Your task to perform on an android device: add a contact in the contacts app Image 0: 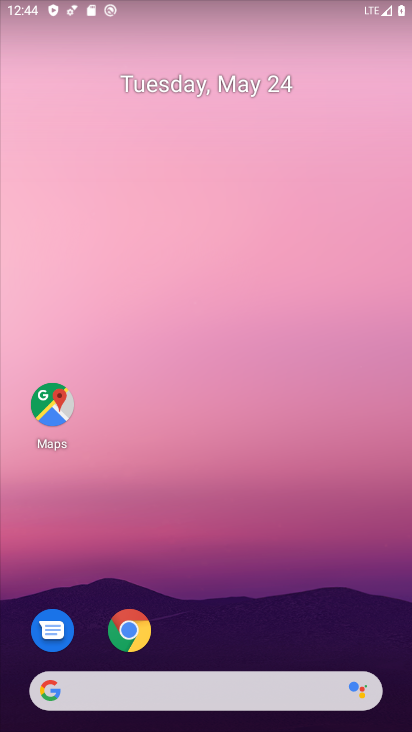
Step 0: drag from (296, 633) to (366, 11)
Your task to perform on an android device: add a contact in the contacts app Image 1: 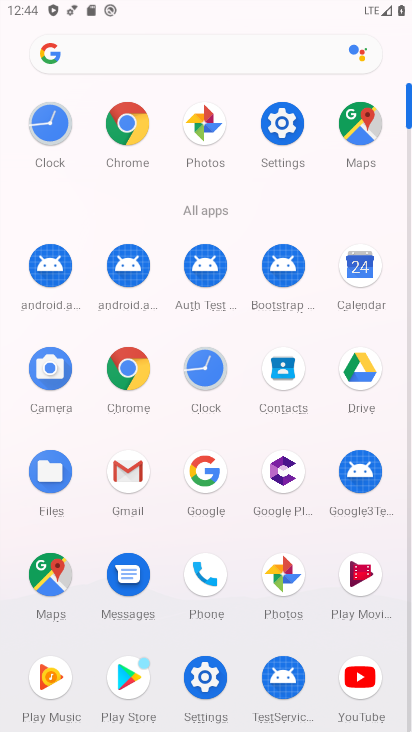
Step 1: click (285, 377)
Your task to perform on an android device: add a contact in the contacts app Image 2: 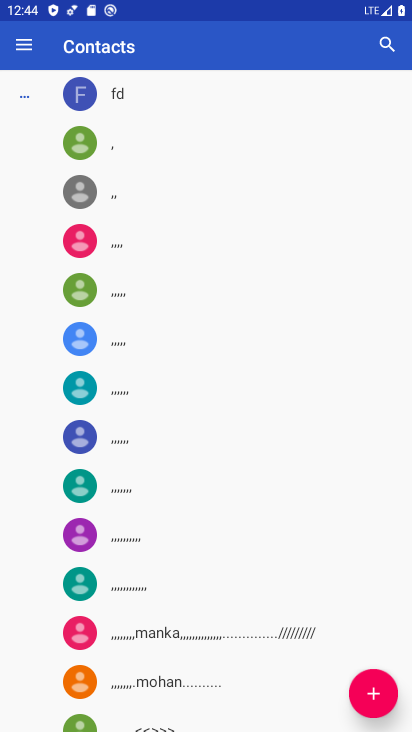
Step 2: click (377, 701)
Your task to perform on an android device: add a contact in the contacts app Image 3: 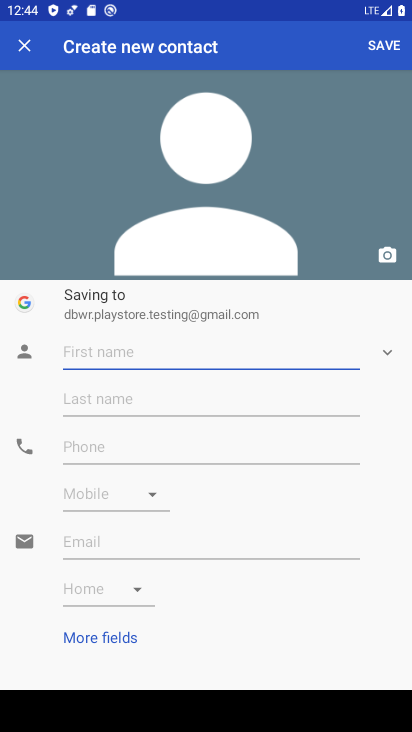
Step 3: type "tra"
Your task to perform on an android device: add a contact in the contacts app Image 4: 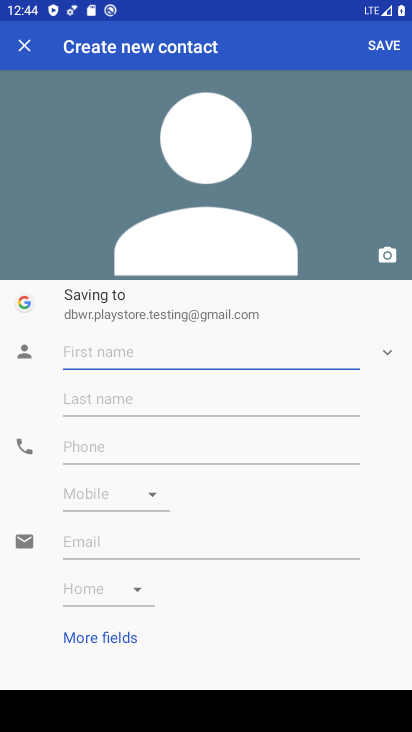
Step 4: click (275, 452)
Your task to perform on an android device: add a contact in the contacts app Image 5: 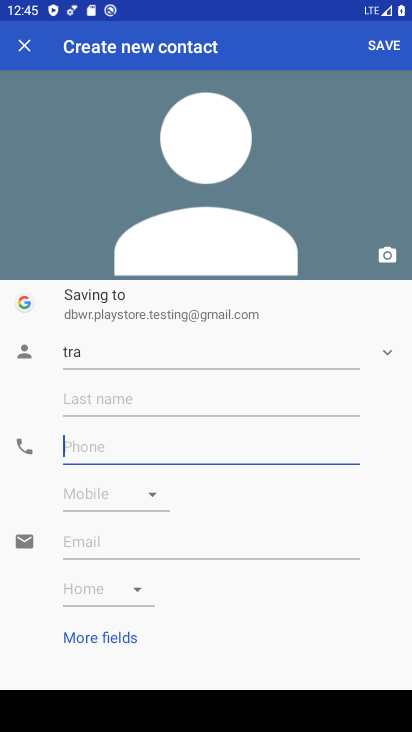
Step 5: type "7777777777"
Your task to perform on an android device: add a contact in the contacts app Image 6: 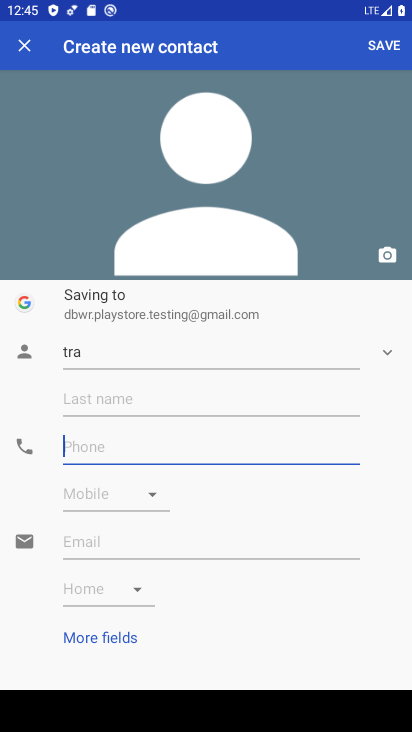
Step 6: click (391, 42)
Your task to perform on an android device: add a contact in the contacts app Image 7: 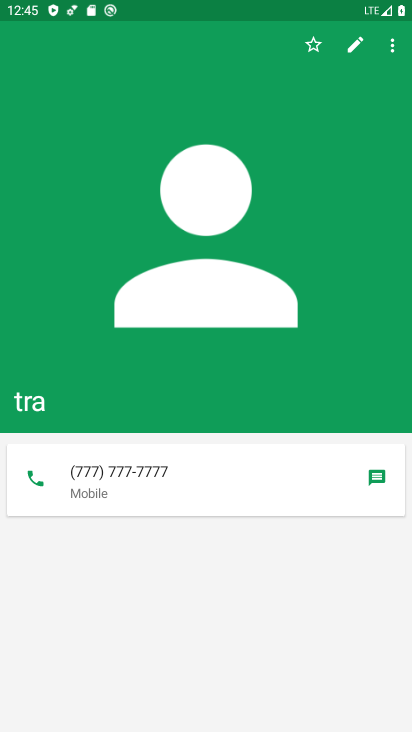
Step 7: task complete